Your task to perform on an android device: Go to sound settings Image 0: 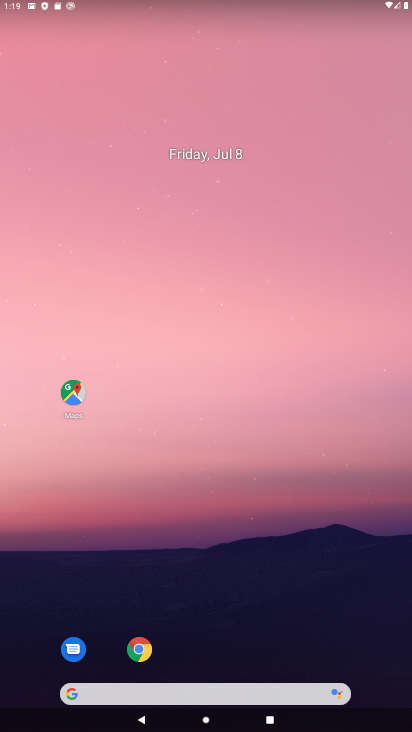
Step 0: drag from (276, 626) to (169, 1)
Your task to perform on an android device: Go to sound settings Image 1: 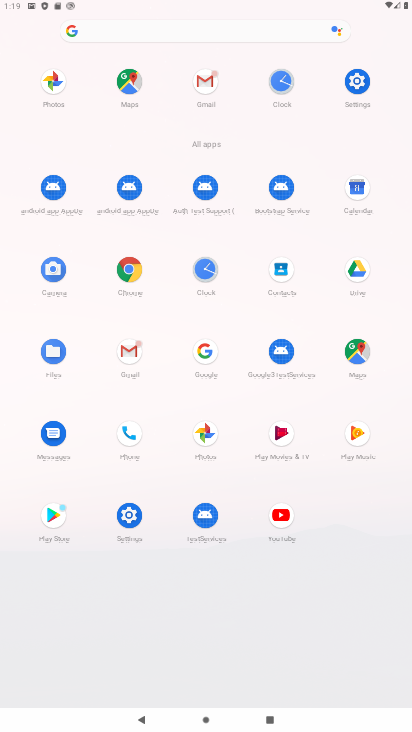
Step 1: click (355, 73)
Your task to perform on an android device: Go to sound settings Image 2: 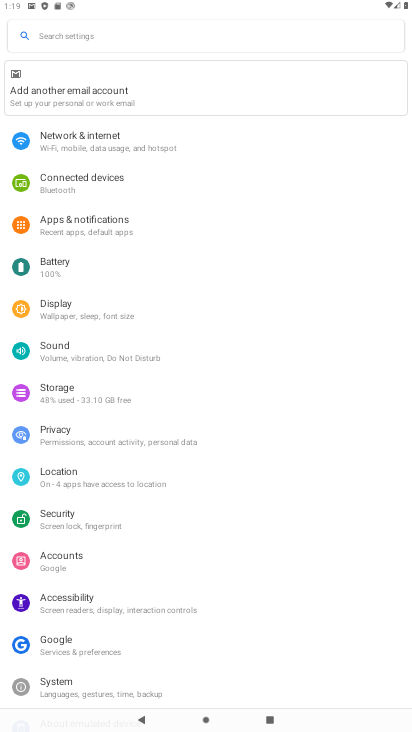
Step 2: click (105, 352)
Your task to perform on an android device: Go to sound settings Image 3: 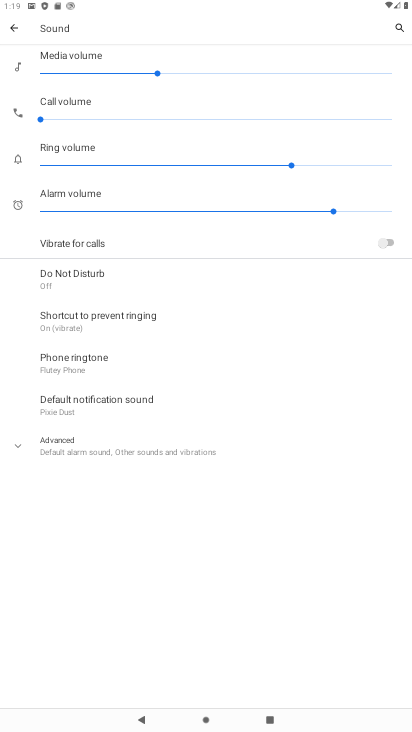
Step 3: task complete